Your task to perform on an android device: turn on wifi Image 0: 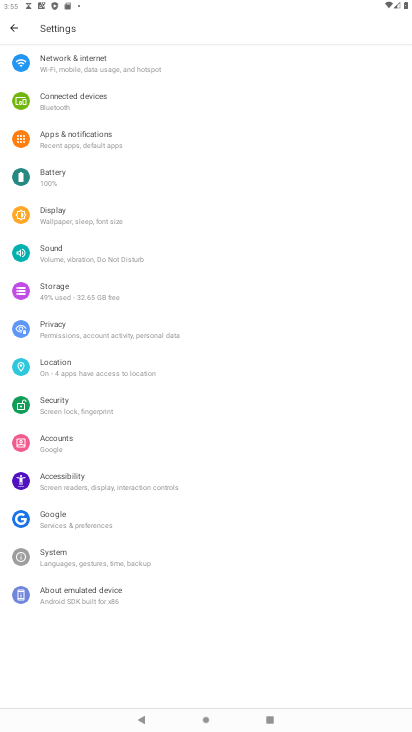
Step 0: click (67, 72)
Your task to perform on an android device: turn on wifi Image 1: 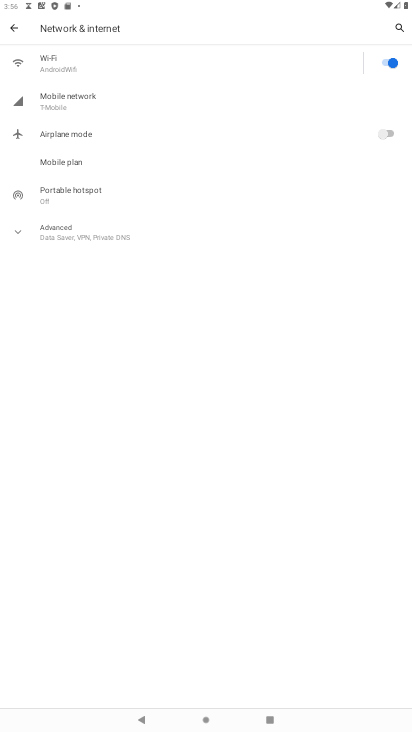
Step 1: click (383, 59)
Your task to perform on an android device: turn on wifi Image 2: 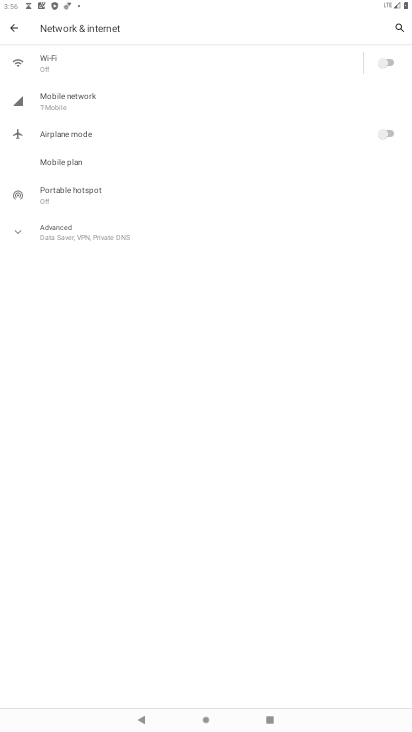
Step 2: click (392, 62)
Your task to perform on an android device: turn on wifi Image 3: 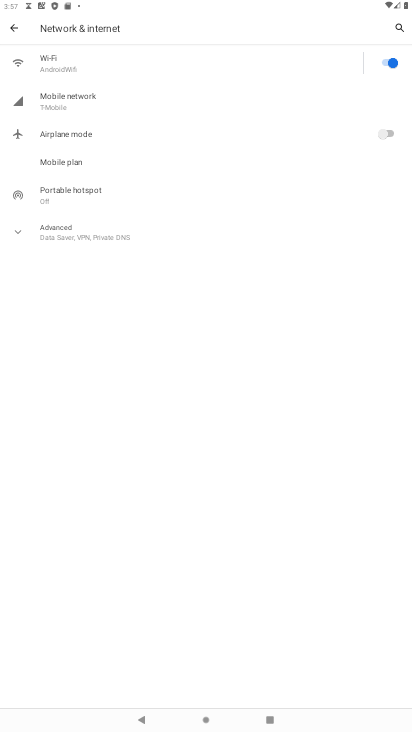
Step 3: task complete